Your task to perform on an android device: toggle data saver in the chrome app Image 0: 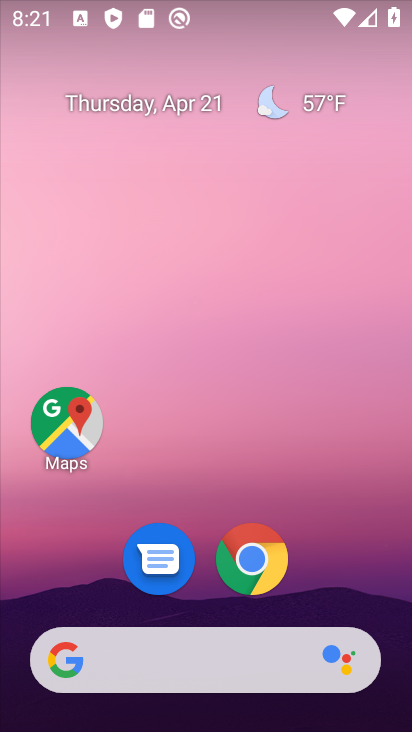
Step 0: click (259, 571)
Your task to perform on an android device: toggle data saver in the chrome app Image 1: 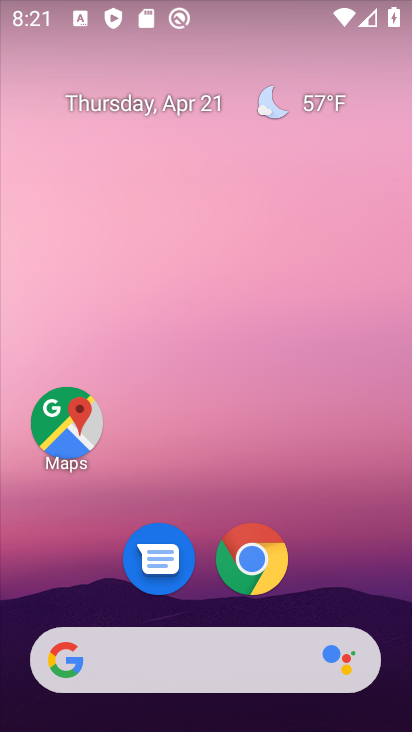
Step 1: click (259, 571)
Your task to perform on an android device: toggle data saver in the chrome app Image 2: 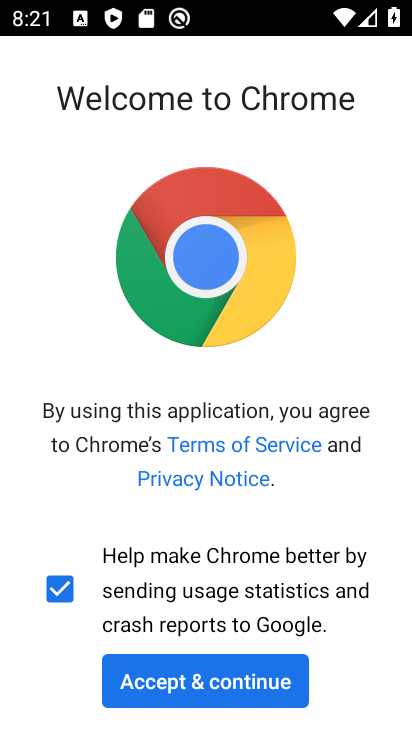
Step 2: click (259, 668)
Your task to perform on an android device: toggle data saver in the chrome app Image 3: 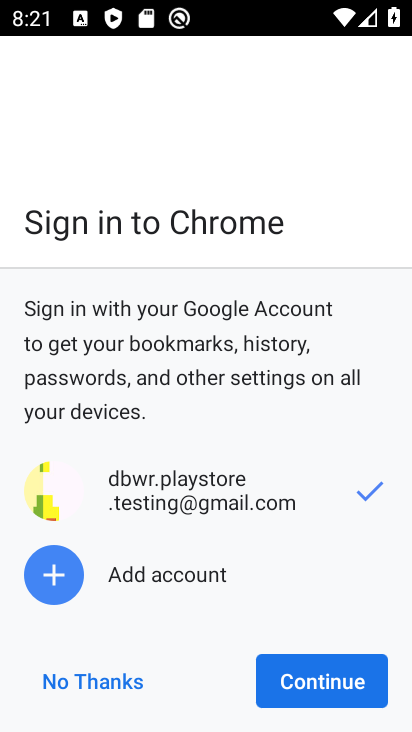
Step 3: click (331, 674)
Your task to perform on an android device: toggle data saver in the chrome app Image 4: 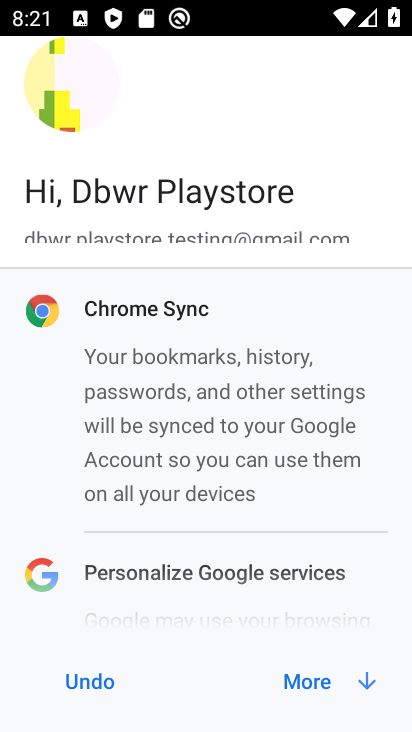
Step 4: click (308, 678)
Your task to perform on an android device: toggle data saver in the chrome app Image 5: 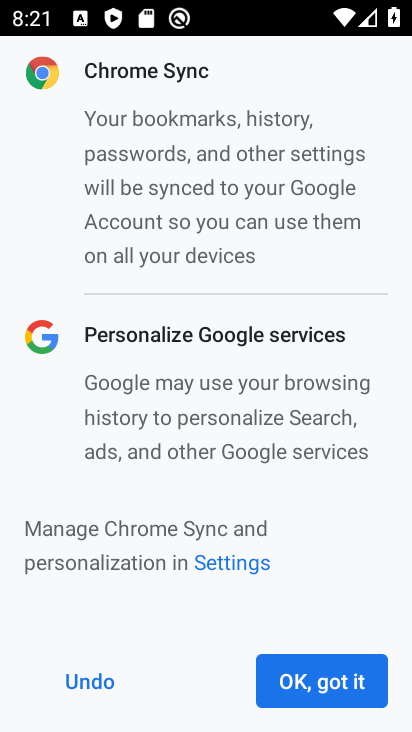
Step 5: click (308, 678)
Your task to perform on an android device: toggle data saver in the chrome app Image 6: 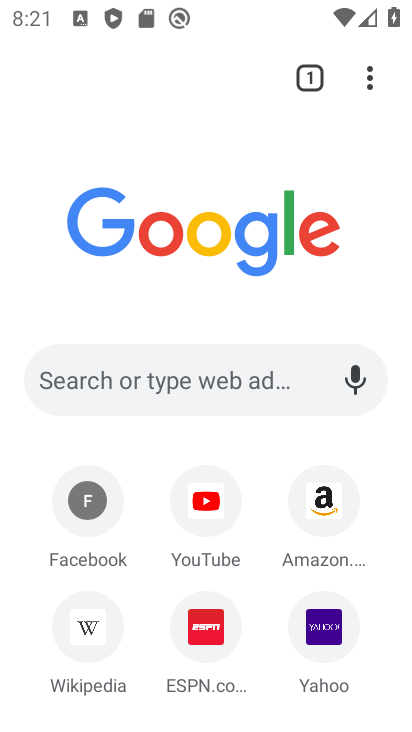
Step 6: click (373, 78)
Your task to perform on an android device: toggle data saver in the chrome app Image 7: 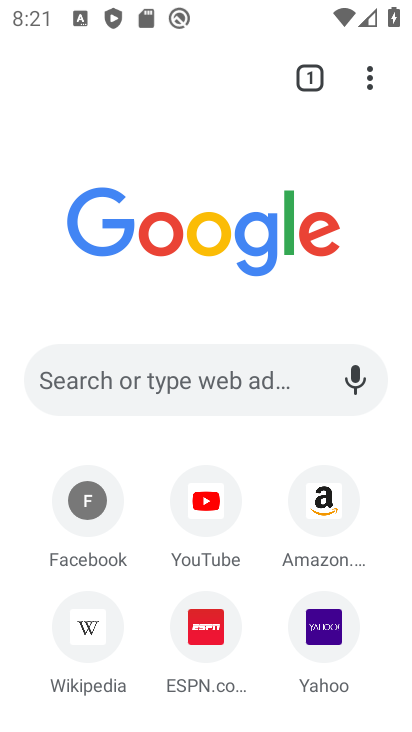
Step 7: click (375, 81)
Your task to perform on an android device: toggle data saver in the chrome app Image 8: 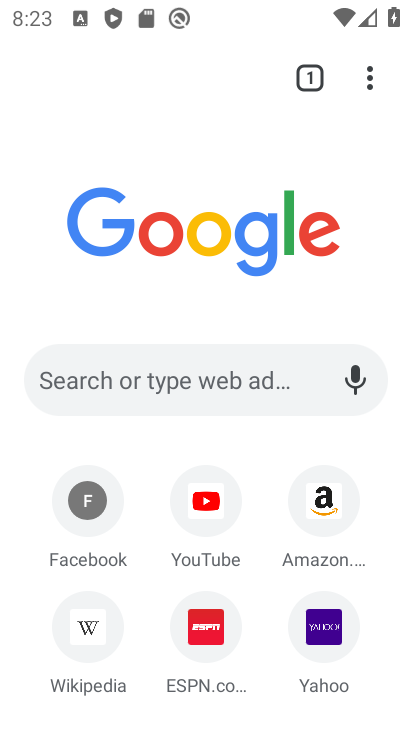
Step 8: click (373, 76)
Your task to perform on an android device: toggle data saver in the chrome app Image 9: 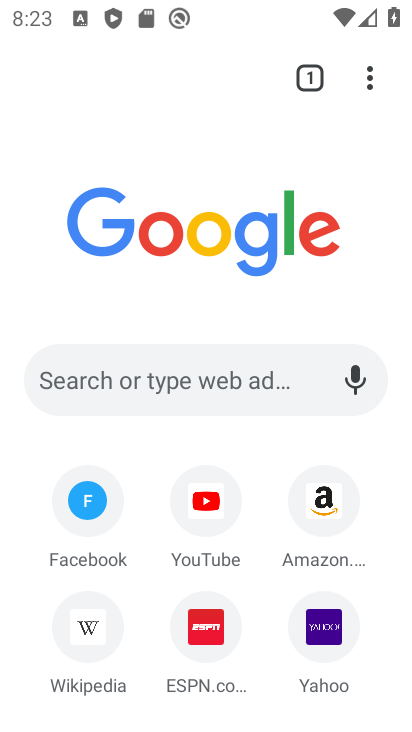
Step 9: click (367, 80)
Your task to perform on an android device: toggle data saver in the chrome app Image 10: 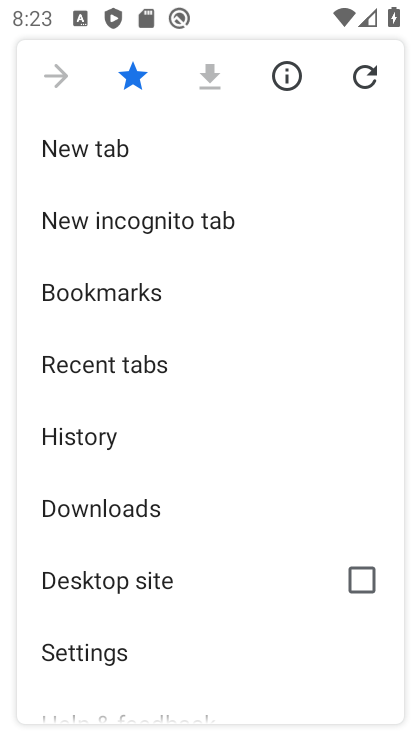
Step 10: click (122, 656)
Your task to perform on an android device: toggle data saver in the chrome app Image 11: 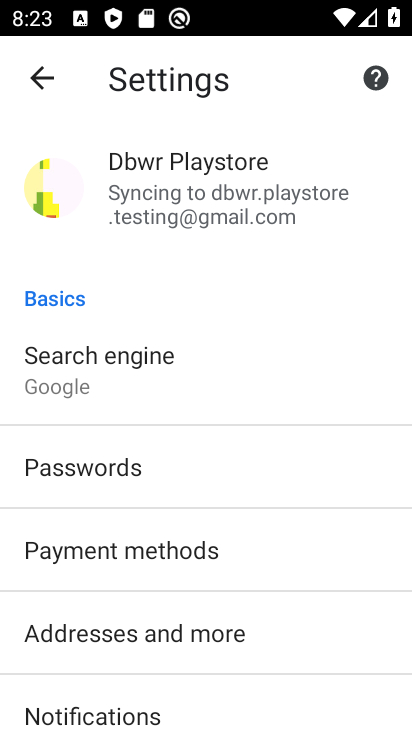
Step 11: drag from (305, 699) to (225, 150)
Your task to perform on an android device: toggle data saver in the chrome app Image 12: 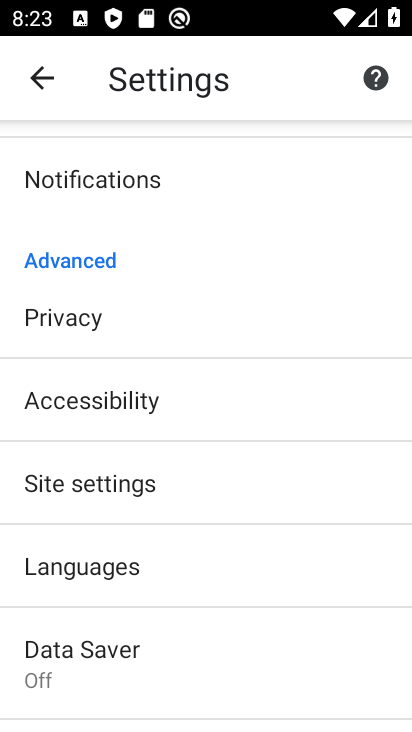
Step 12: click (134, 650)
Your task to perform on an android device: toggle data saver in the chrome app Image 13: 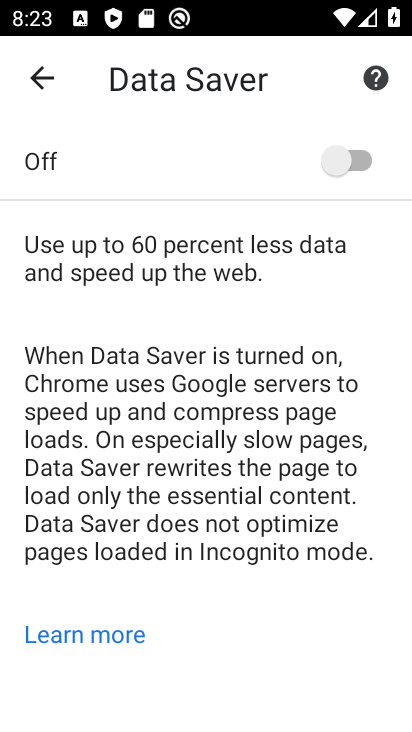
Step 13: click (363, 153)
Your task to perform on an android device: toggle data saver in the chrome app Image 14: 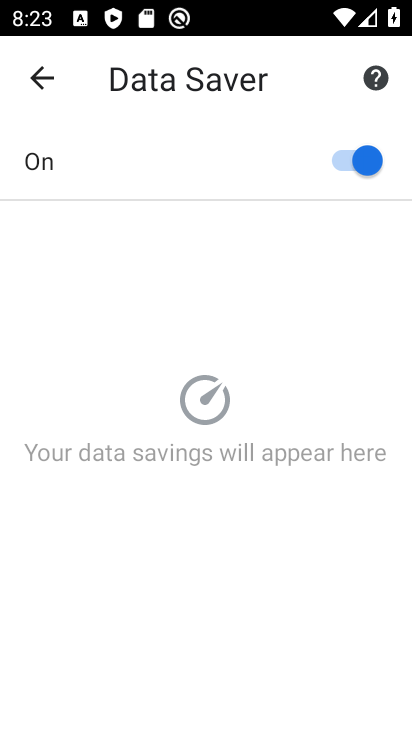
Step 14: task complete